Your task to perform on an android device: change timer sound Image 0: 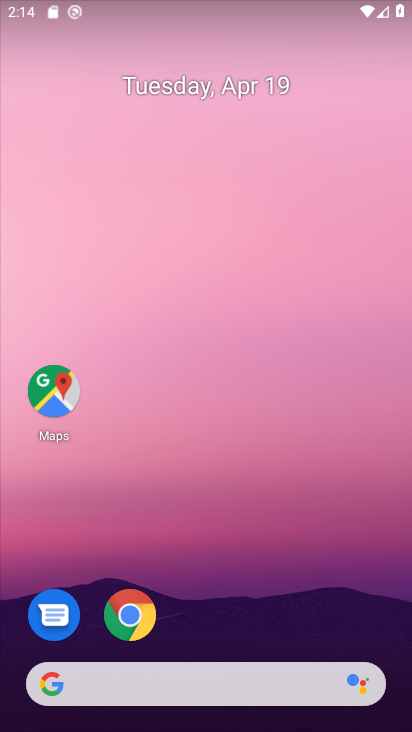
Step 0: drag from (270, 439) to (313, 219)
Your task to perform on an android device: change timer sound Image 1: 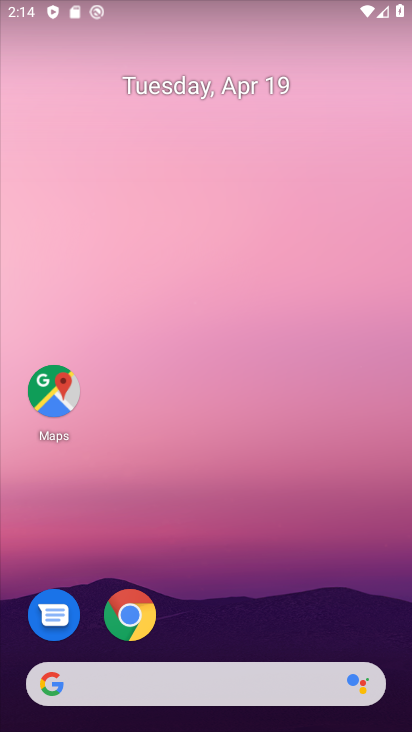
Step 1: drag from (265, 522) to (289, 139)
Your task to perform on an android device: change timer sound Image 2: 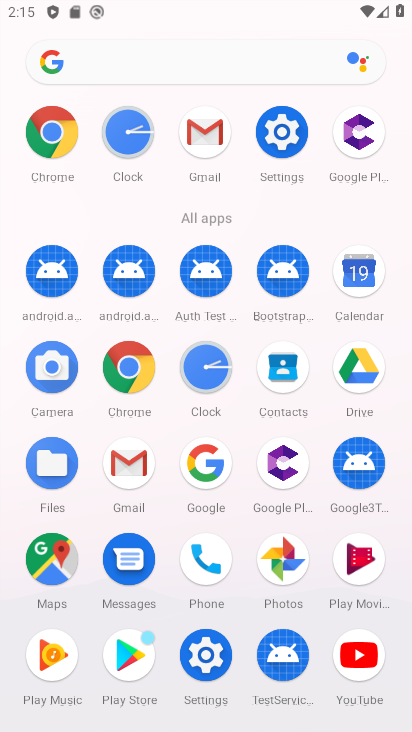
Step 2: click (207, 354)
Your task to perform on an android device: change timer sound Image 3: 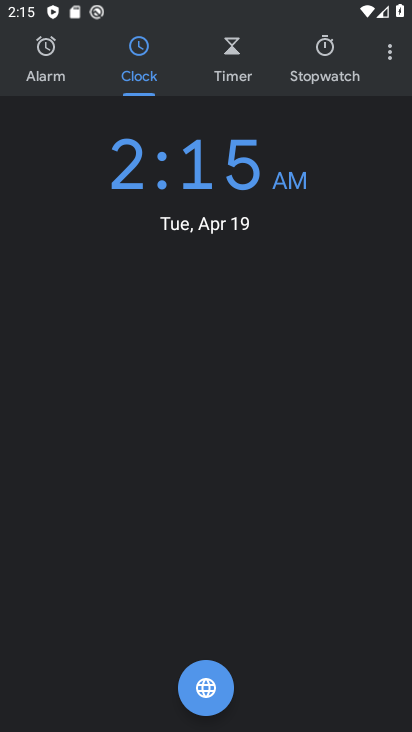
Step 3: click (385, 56)
Your task to perform on an android device: change timer sound Image 4: 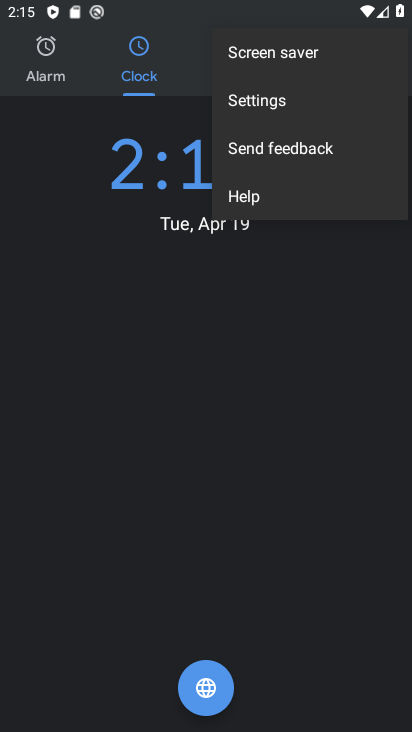
Step 4: click (272, 100)
Your task to perform on an android device: change timer sound Image 5: 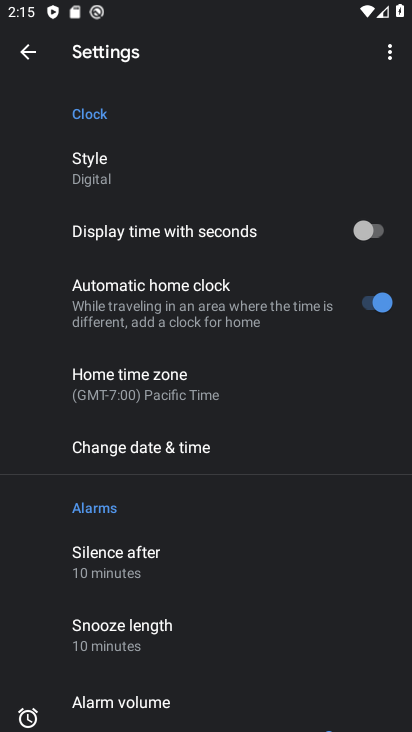
Step 5: drag from (183, 632) to (287, 104)
Your task to perform on an android device: change timer sound Image 6: 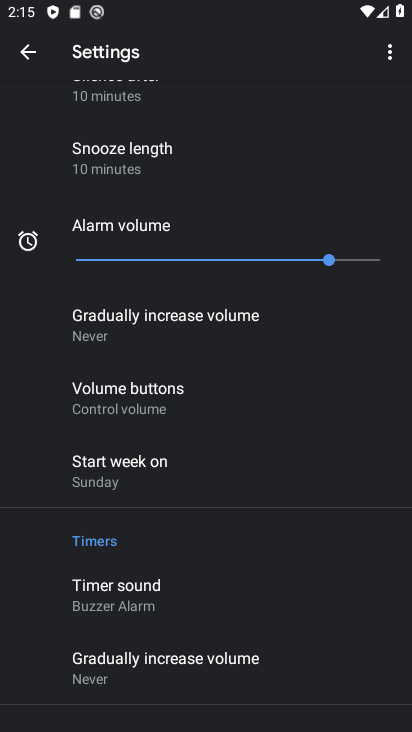
Step 6: click (177, 581)
Your task to perform on an android device: change timer sound Image 7: 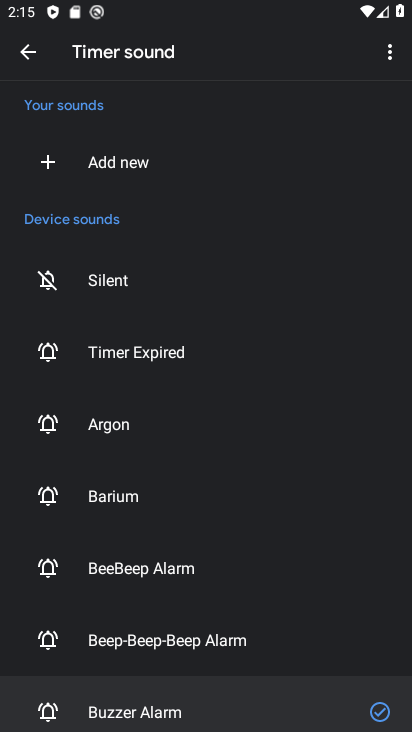
Step 7: drag from (206, 613) to (276, 0)
Your task to perform on an android device: change timer sound Image 8: 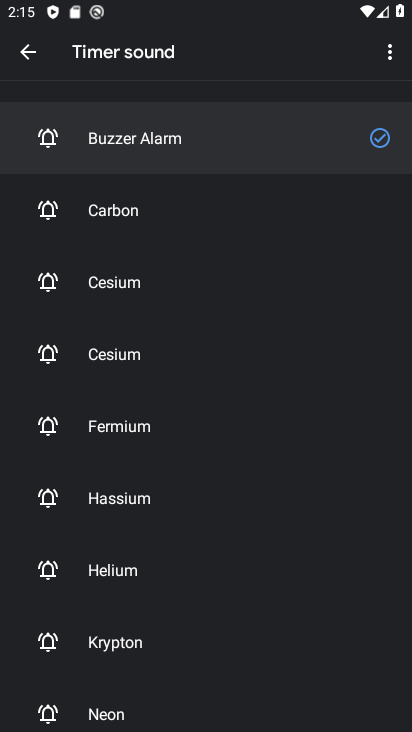
Step 8: click (175, 632)
Your task to perform on an android device: change timer sound Image 9: 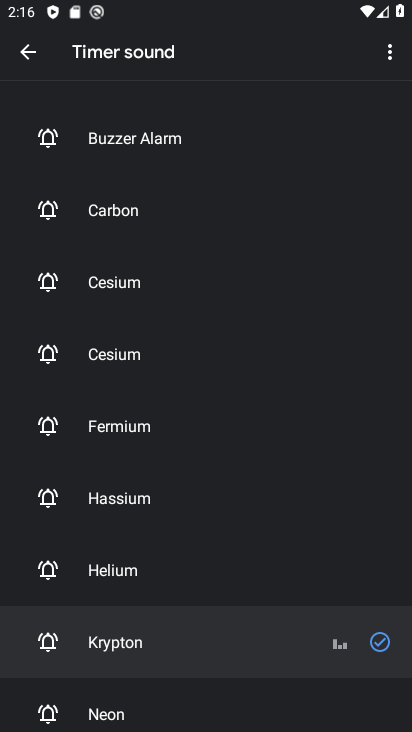
Step 9: task complete